Your task to perform on an android device: turn off improve location accuracy Image 0: 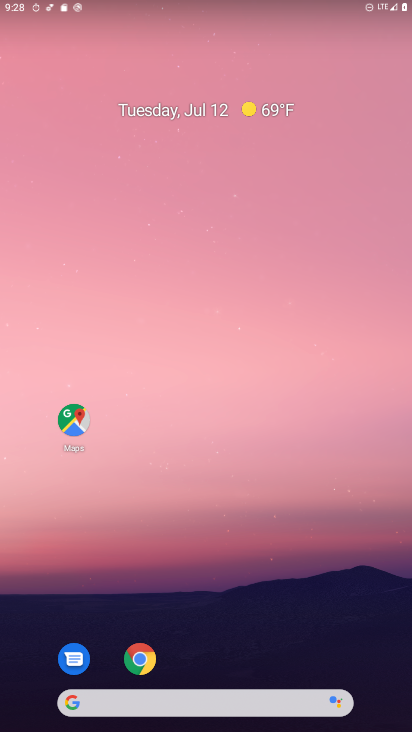
Step 0: drag from (194, 730) to (194, 629)
Your task to perform on an android device: turn off improve location accuracy Image 1: 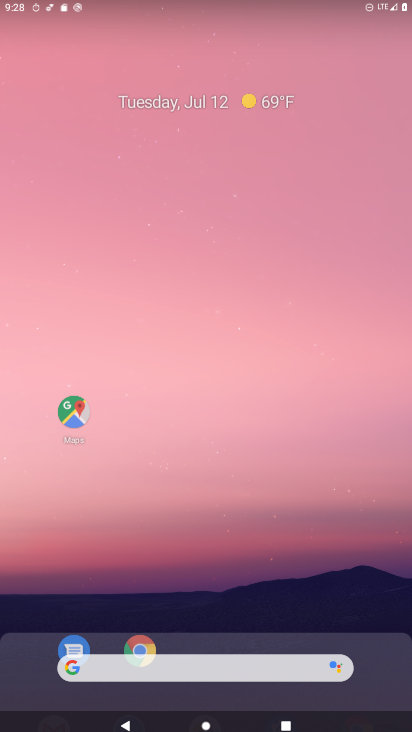
Step 1: drag from (203, 250) to (223, 44)
Your task to perform on an android device: turn off improve location accuracy Image 2: 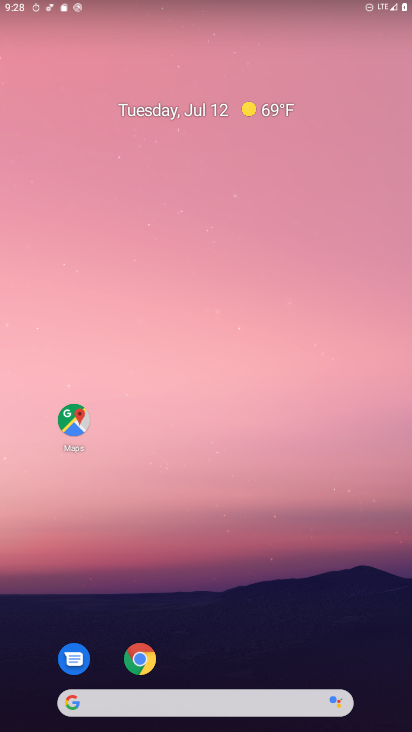
Step 2: click (251, 727)
Your task to perform on an android device: turn off improve location accuracy Image 3: 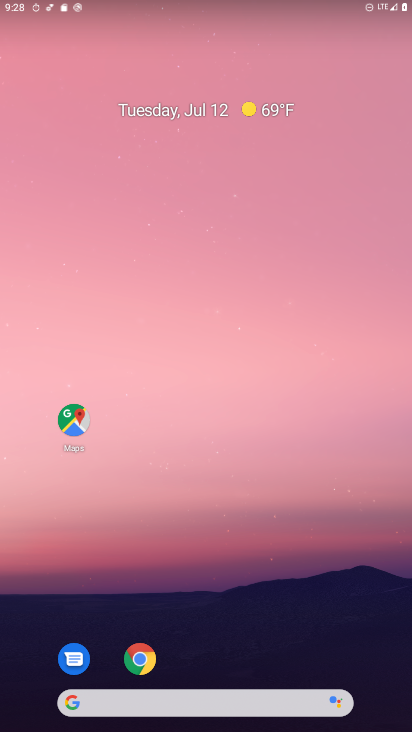
Step 3: drag from (255, 144) to (255, 53)
Your task to perform on an android device: turn off improve location accuracy Image 4: 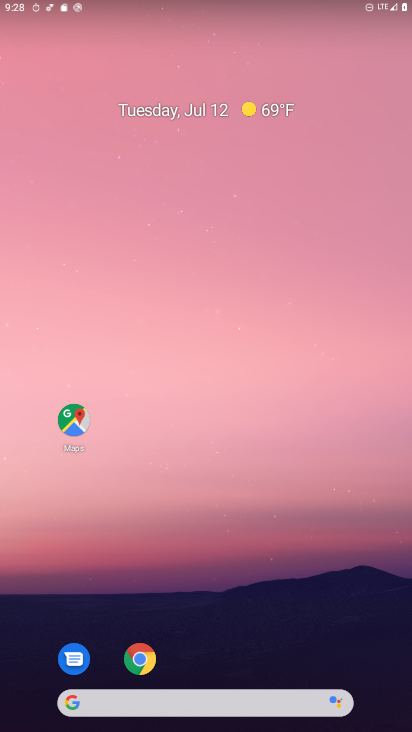
Step 4: drag from (256, 718) to (253, 662)
Your task to perform on an android device: turn off improve location accuracy Image 5: 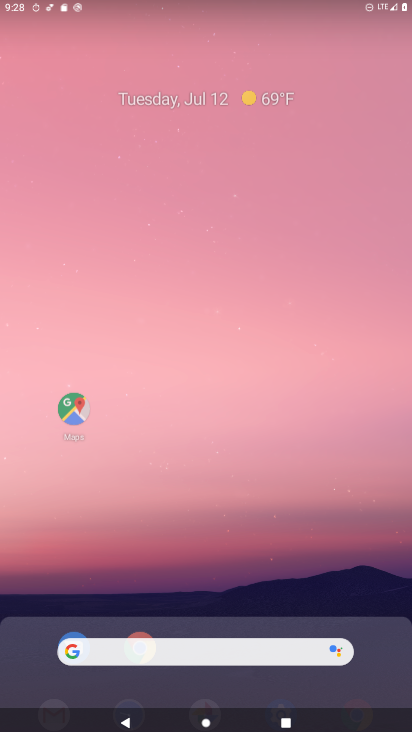
Step 5: drag from (210, 144) to (204, 8)
Your task to perform on an android device: turn off improve location accuracy Image 6: 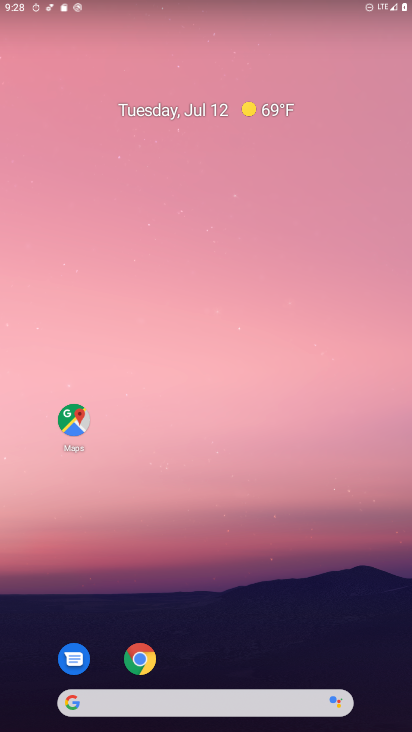
Step 6: drag from (358, 718) to (351, 650)
Your task to perform on an android device: turn off improve location accuracy Image 7: 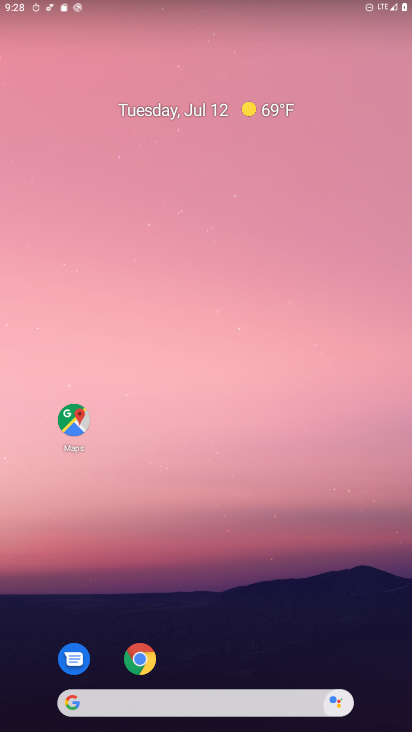
Step 7: drag from (322, 307) to (316, 141)
Your task to perform on an android device: turn off improve location accuracy Image 8: 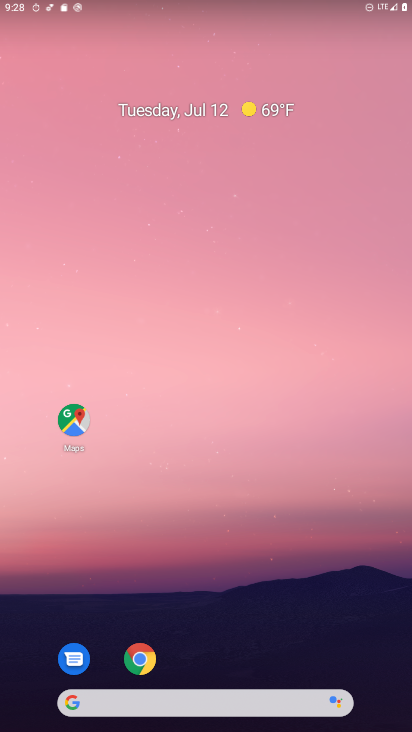
Step 8: drag from (228, 719) to (209, 91)
Your task to perform on an android device: turn off improve location accuracy Image 9: 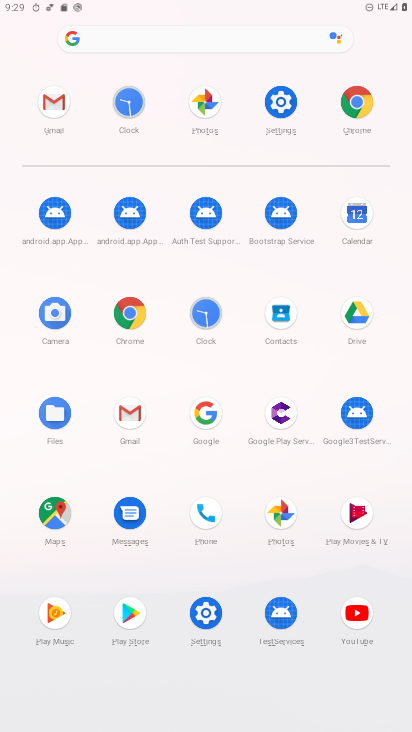
Step 9: click (276, 104)
Your task to perform on an android device: turn off improve location accuracy Image 10: 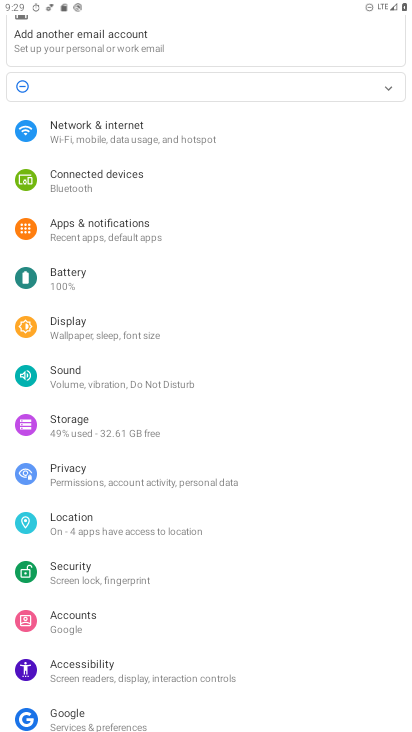
Step 10: click (70, 530)
Your task to perform on an android device: turn off improve location accuracy Image 11: 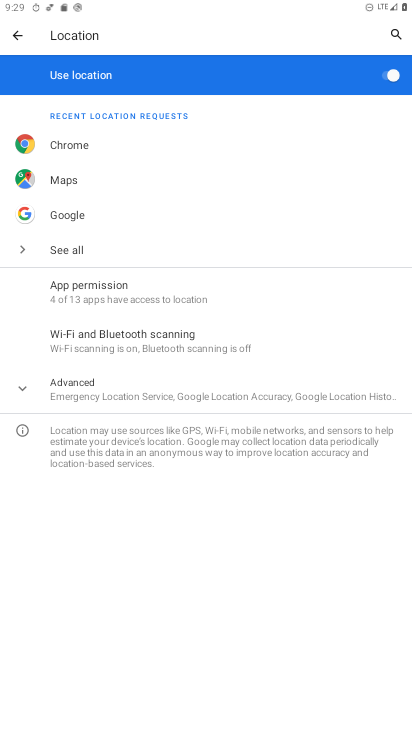
Step 11: click (103, 381)
Your task to perform on an android device: turn off improve location accuracy Image 12: 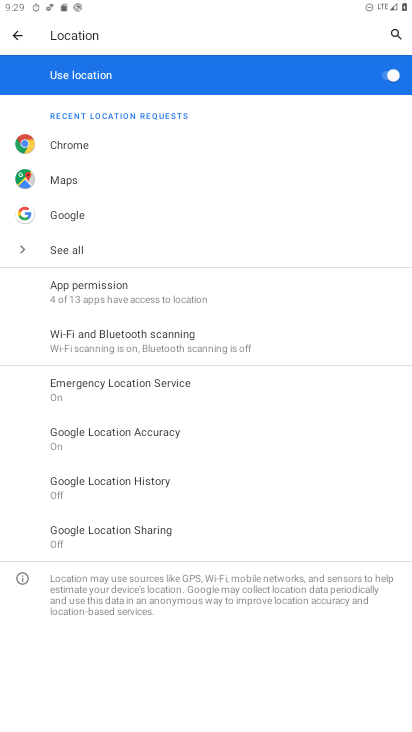
Step 12: click (91, 430)
Your task to perform on an android device: turn off improve location accuracy Image 13: 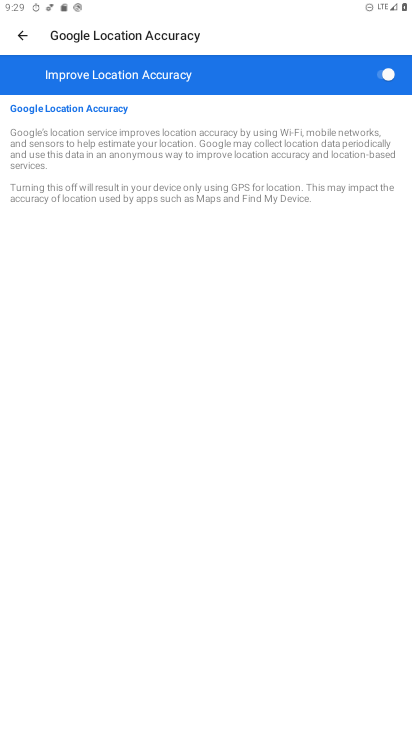
Step 13: click (385, 77)
Your task to perform on an android device: turn off improve location accuracy Image 14: 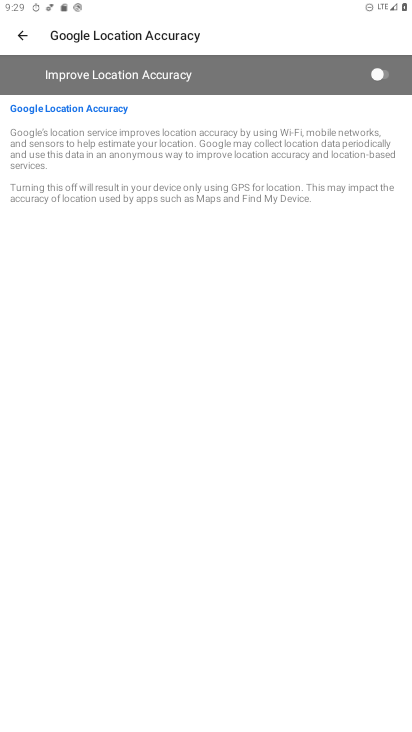
Step 14: task complete